Your task to perform on an android device: all mails in gmail Image 0: 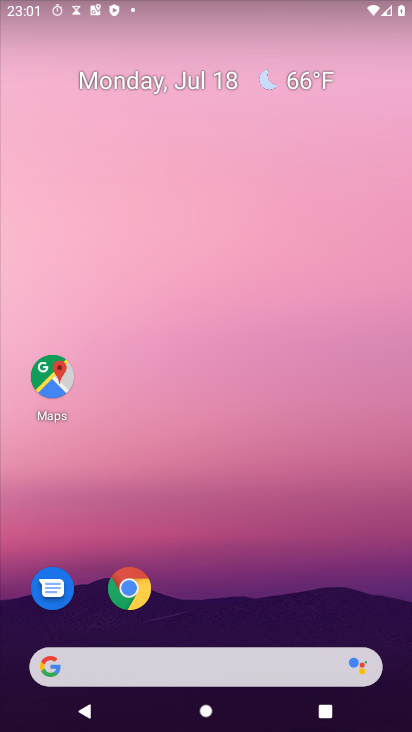
Step 0: press home button
Your task to perform on an android device: all mails in gmail Image 1: 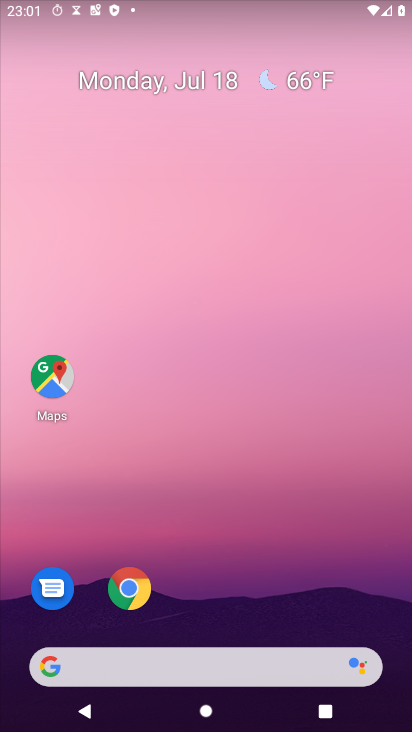
Step 1: drag from (139, 667) to (268, 34)
Your task to perform on an android device: all mails in gmail Image 2: 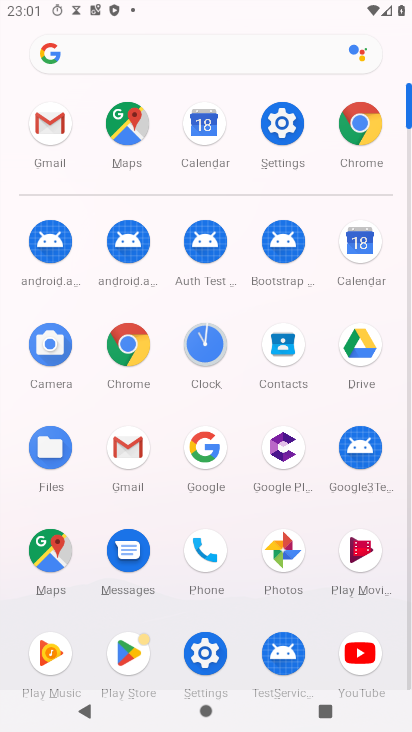
Step 2: click (51, 125)
Your task to perform on an android device: all mails in gmail Image 3: 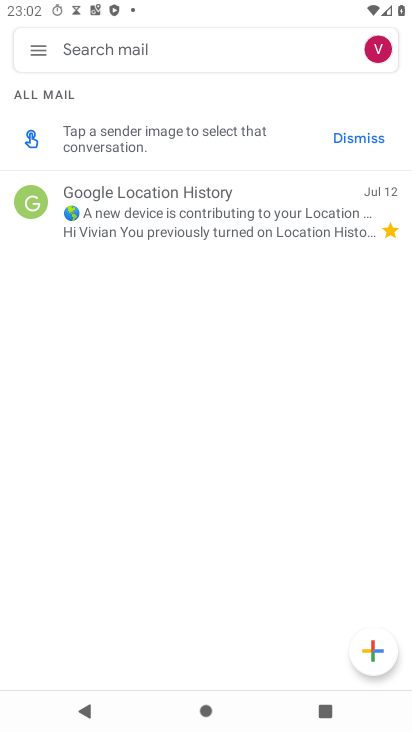
Step 3: task complete